Your task to perform on an android device: turn on the 24-hour format for clock Image 0: 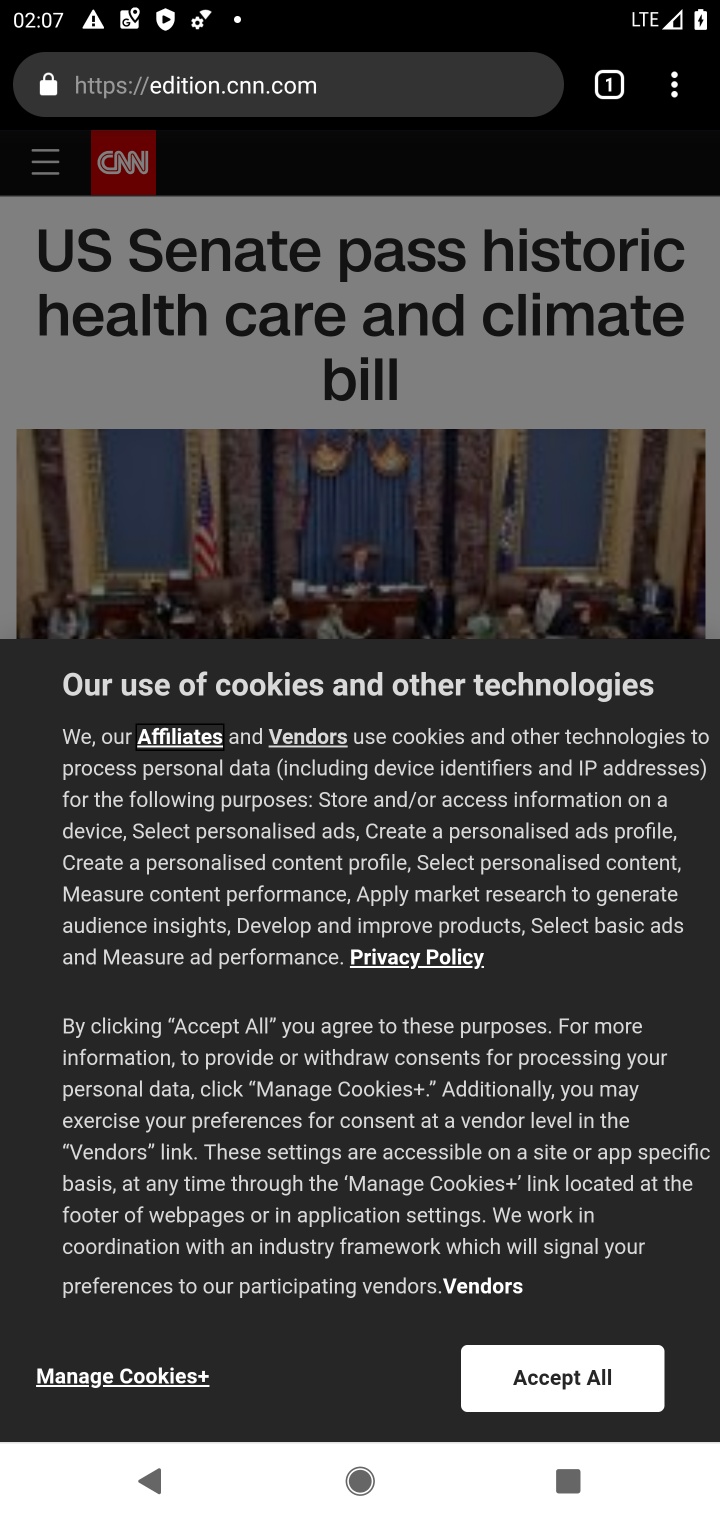
Step 0: press back button
Your task to perform on an android device: turn on the 24-hour format for clock Image 1: 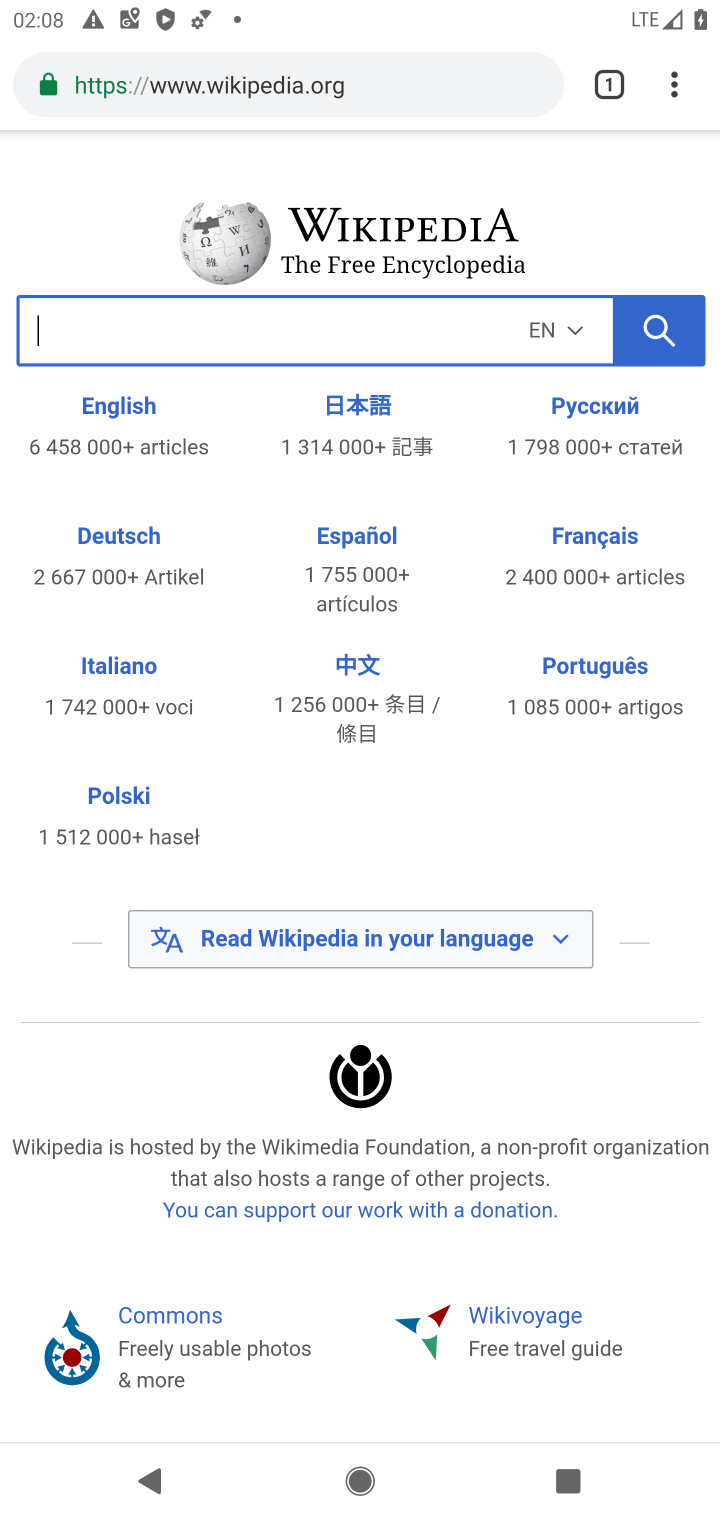
Step 1: press home button
Your task to perform on an android device: turn on the 24-hour format for clock Image 2: 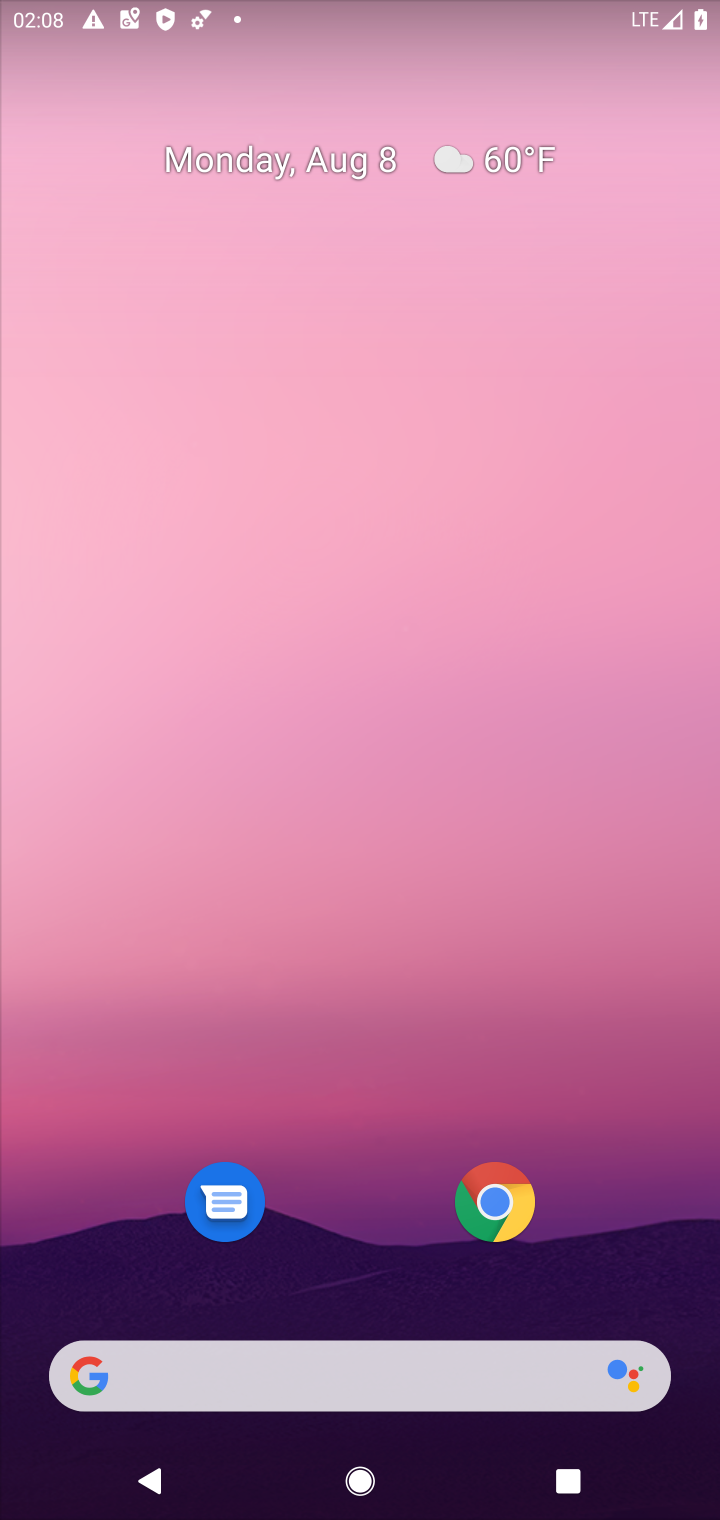
Step 2: drag from (377, 430) to (436, 365)
Your task to perform on an android device: turn on the 24-hour format for clock Image 3: 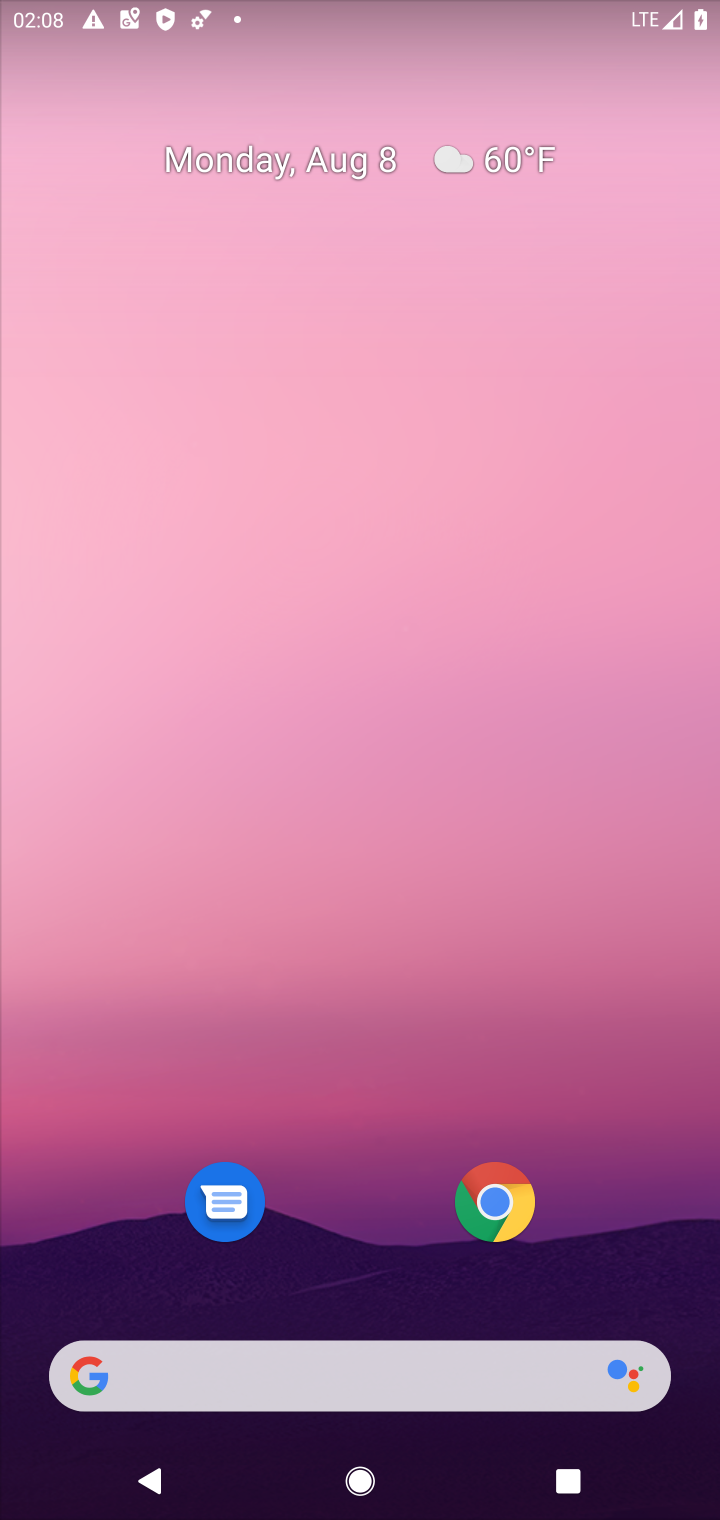
Step 3: drag from (348, 921) to (348, 146)
Your task to perform on an android device: turn on the 24-hour format for clock Image 4: 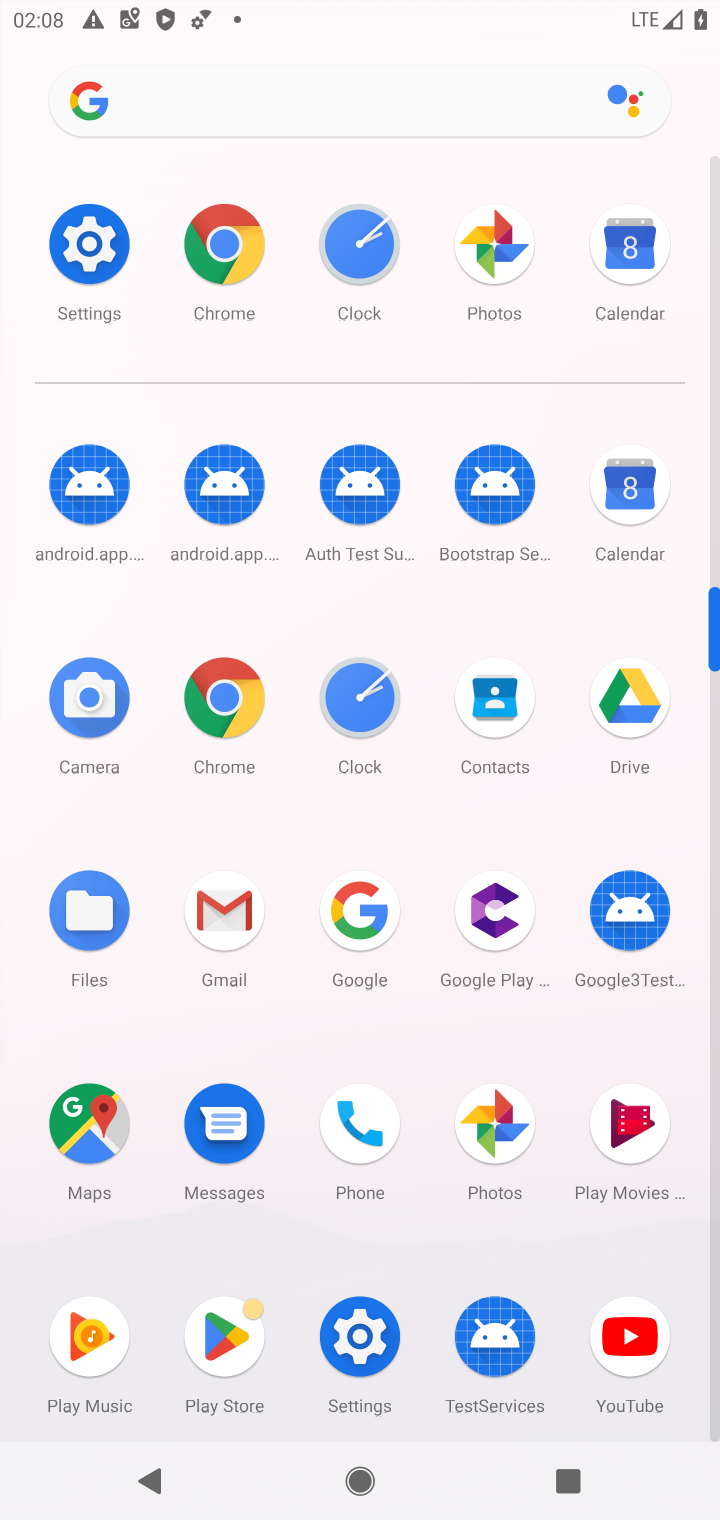
Step 4: click (353, 718)
Your task to perform on an android device: turn on the 24-hour format for clock Image 5: 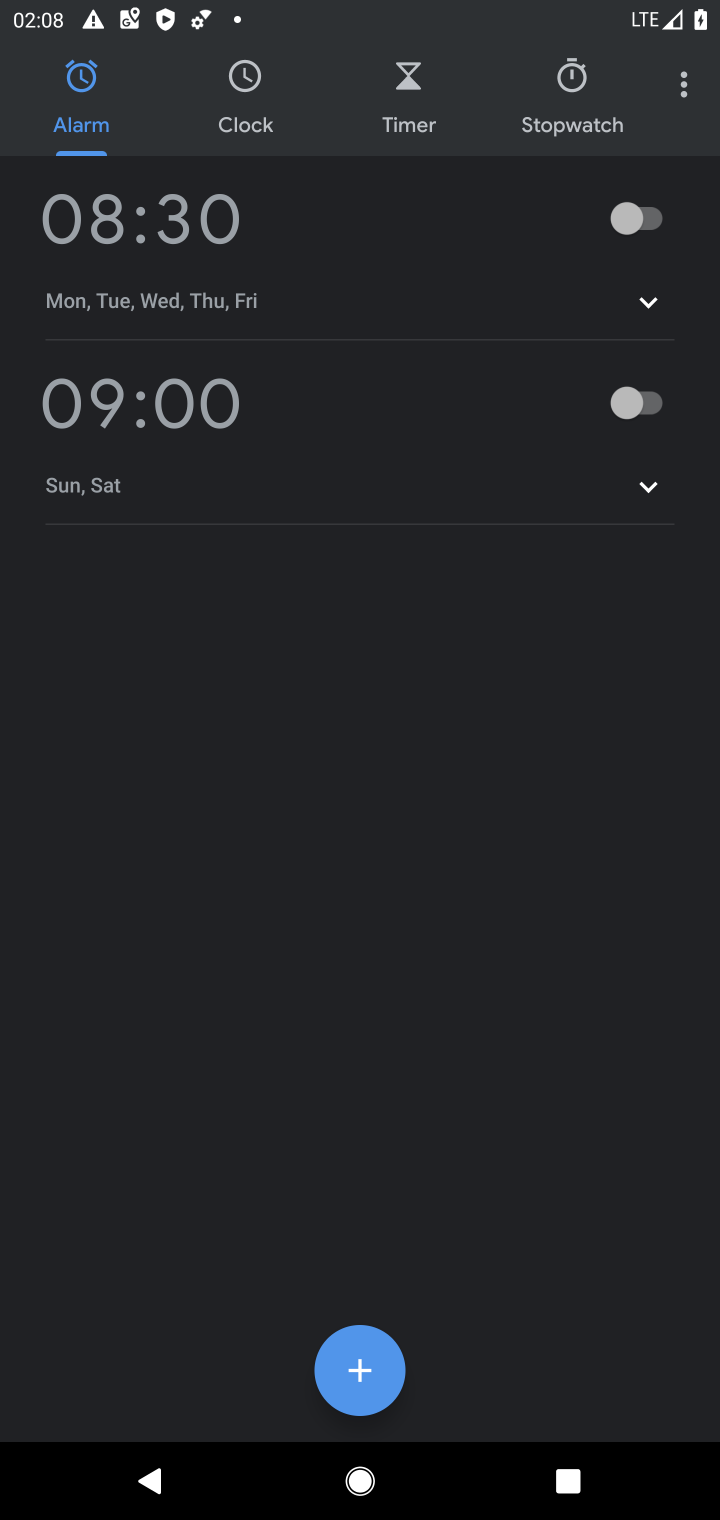
Step 5: click (686, 82)
Your task to perform on an android device: turn on the 24-hour format for clock Image 6: 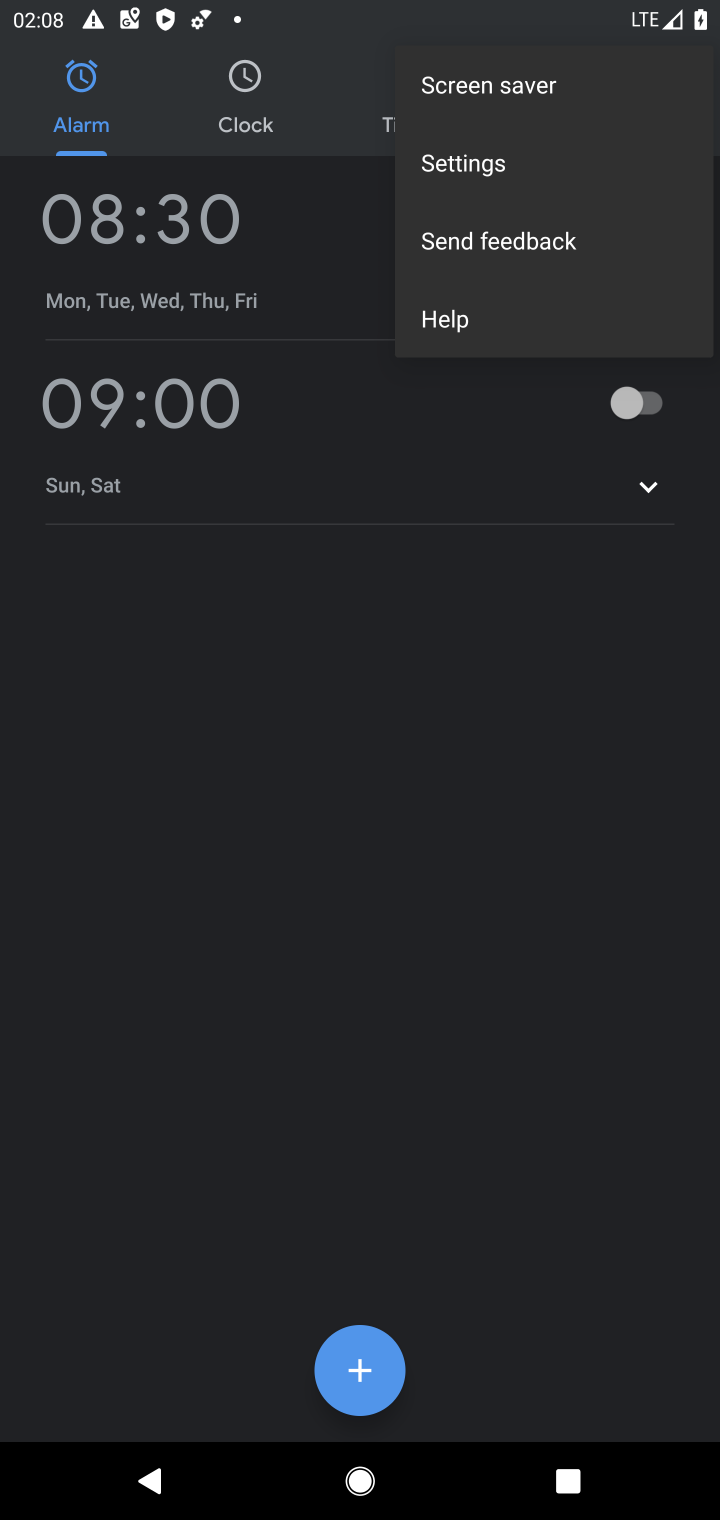
Step 6: click (476, 171)
Your task to perform on an android device: turn on the 24-hour format for clock Image 7: 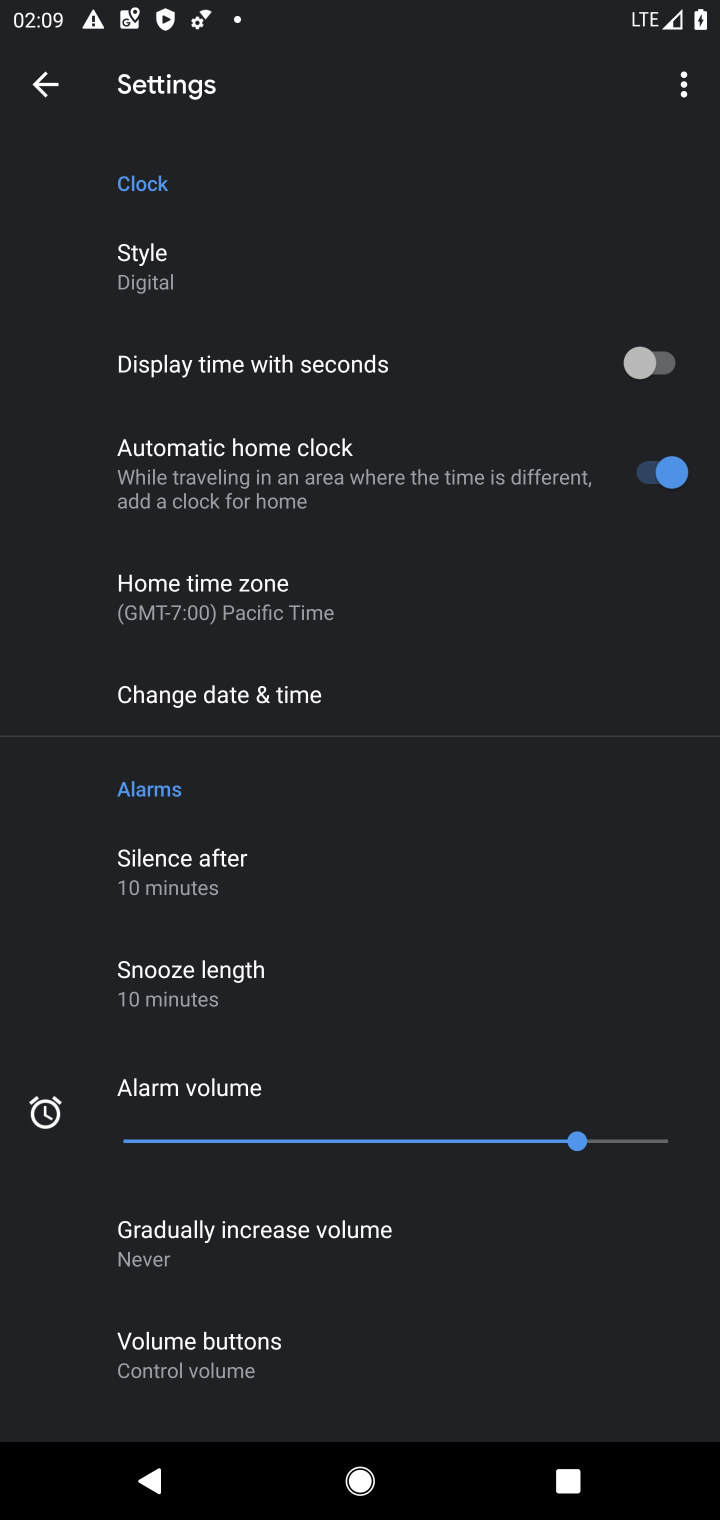
Step 7: drag from (373, 1309) to (406, 503)
Your task to perform on an android device: turn on the 24-hour format for clock Image 8: 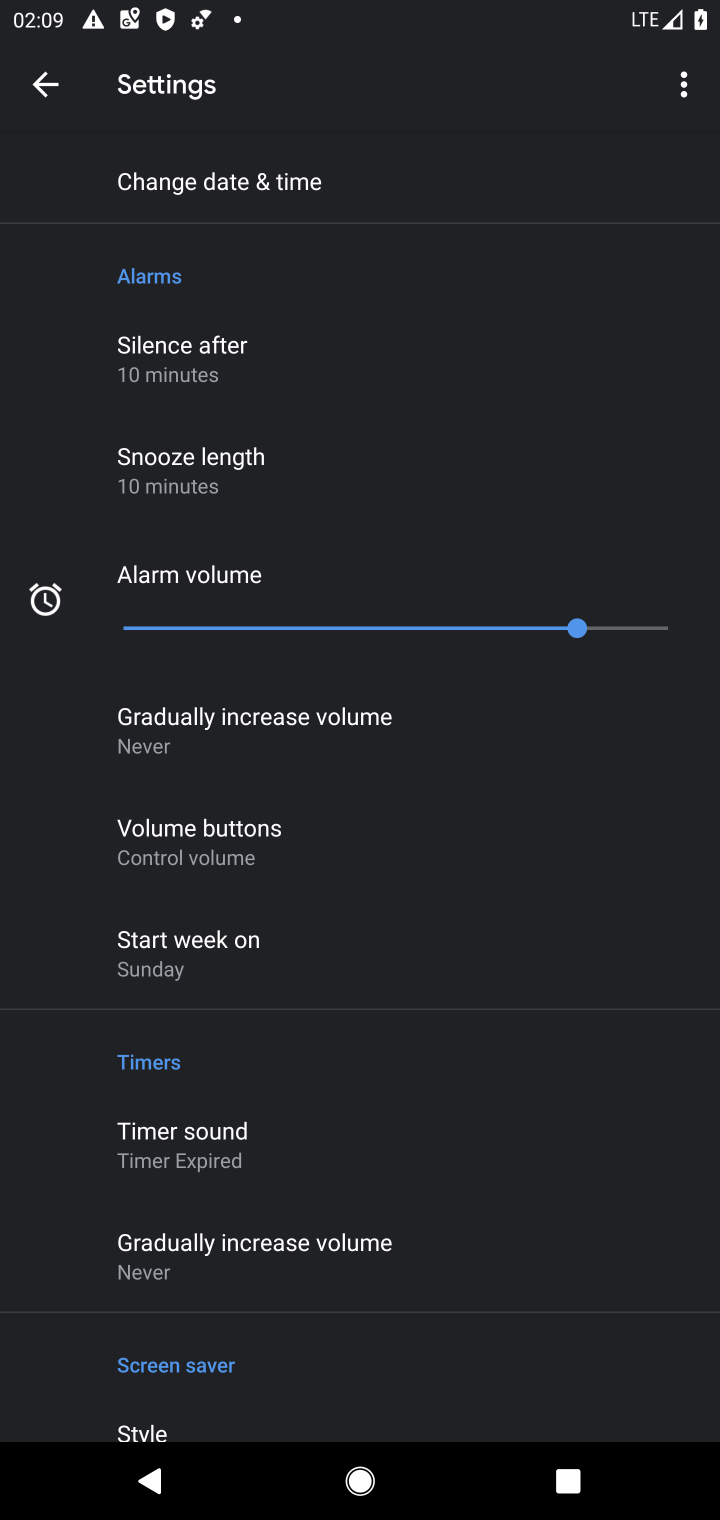
Step 8: click (265, 184)
Your task to perform on an android device: turn on the 24-hour format for clock Image 9: 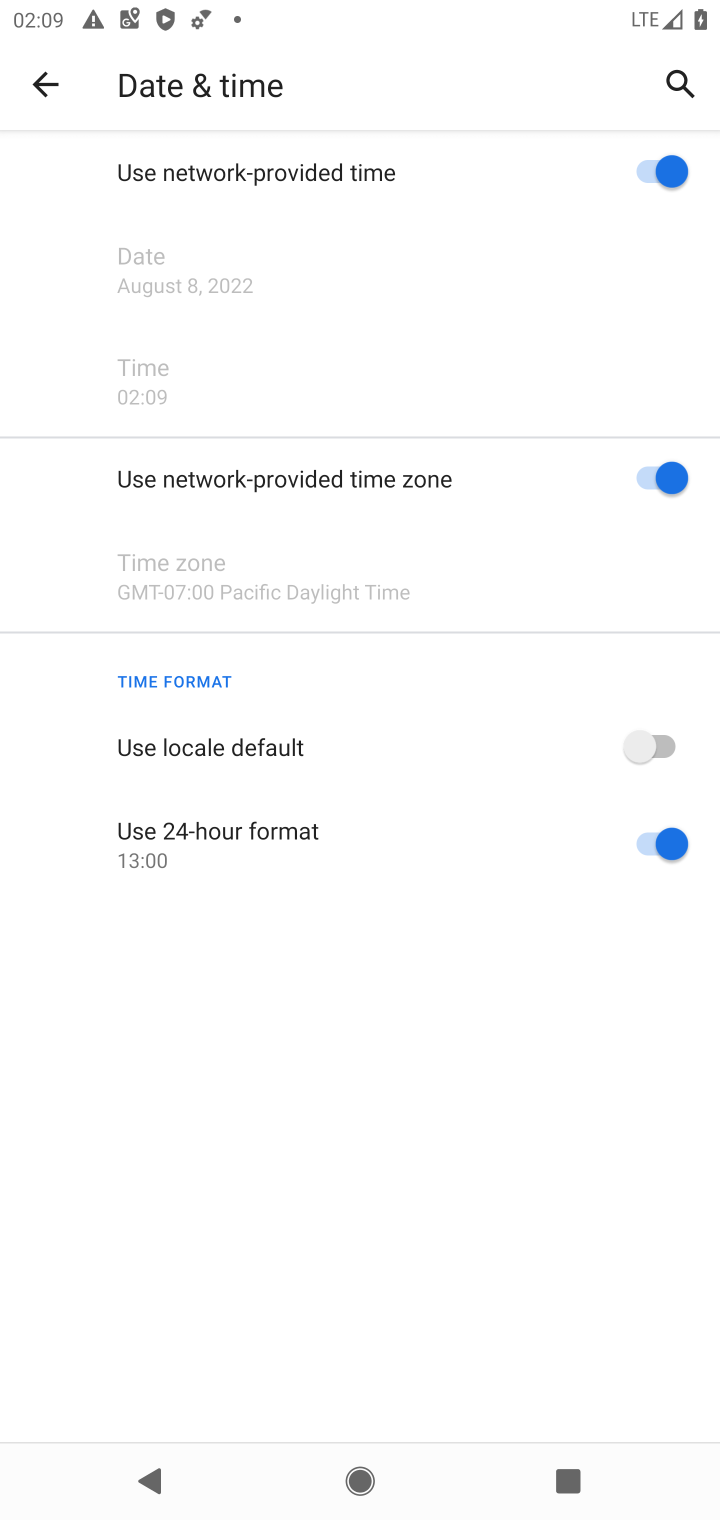
Step 9: task complete